Your task to perform on an android device: toggle notification dots Image 0: 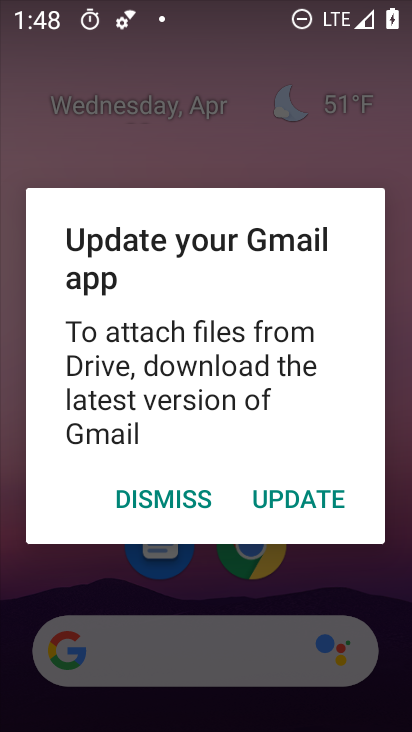
Step 0: press home button
Your task to perform on an android device: toggle notification dots Image 1: 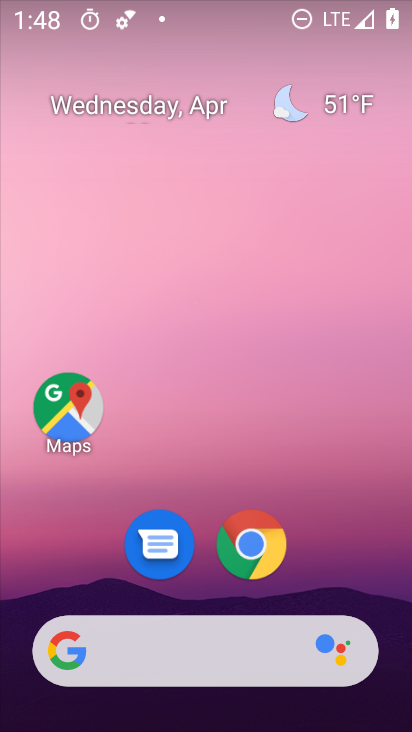
Step 1: drag from (339, 511) to (350, 160)
Your task to perform on an android device: toggle notification dots Image 2: 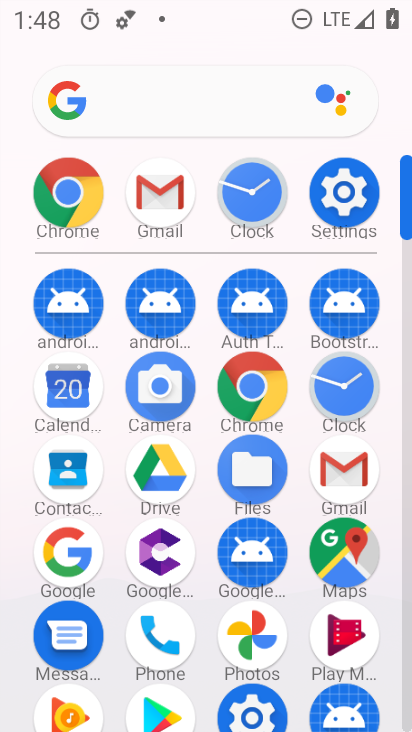
Step 2: click (347, 201)
Your task to perform on an android device: toggle notification dots Image 3: 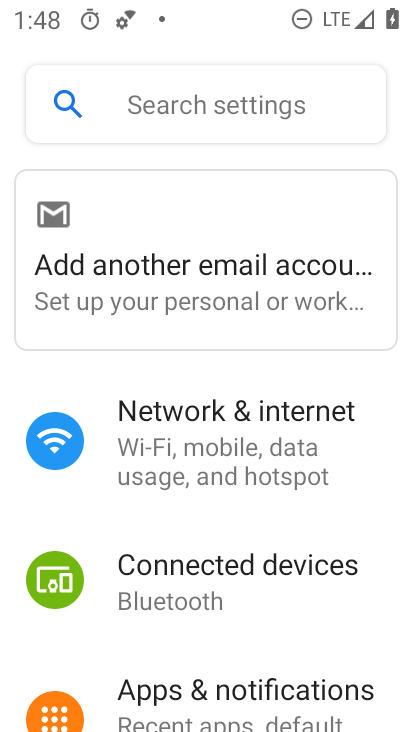
Step 3: drag from (373, 644) to (371, 408)
Your task to perform on an android device: toggle notification dots Image 4: 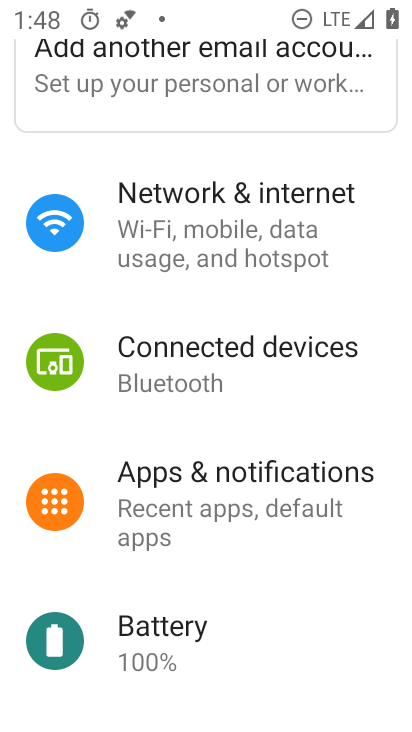
Step 4: drag from (359, 601) to (375, 433)
Your task to perform on an android device: toggle notification dots Image 5: 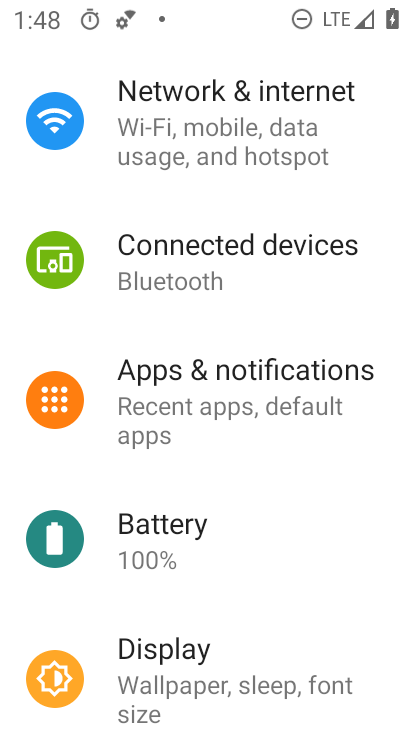
Step 5: drag from (349, 615) to (355, 442)
Your task to perform on an android device: toggle notification dots Image 6: 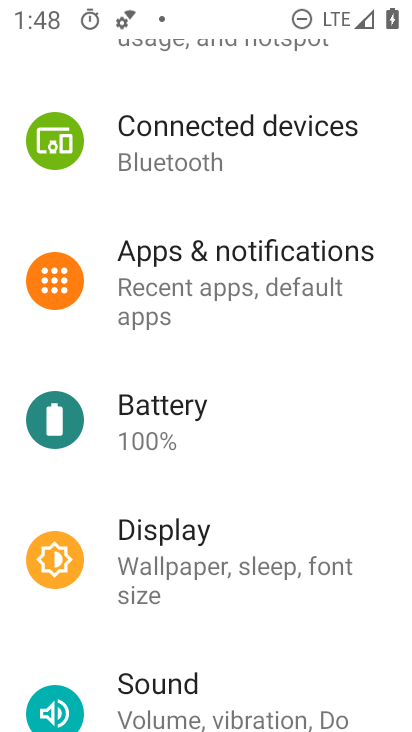
Step 6: drag from (339, 628) to (352, 459)
Your task to perform on an android device: toggle notification dots Image 7: 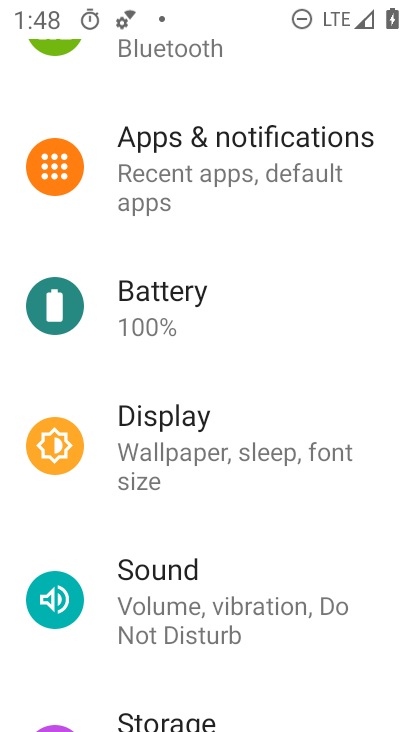
Step 7: click (276, 170)
Your task to perform on an android device: toggle notification dots Image 8: 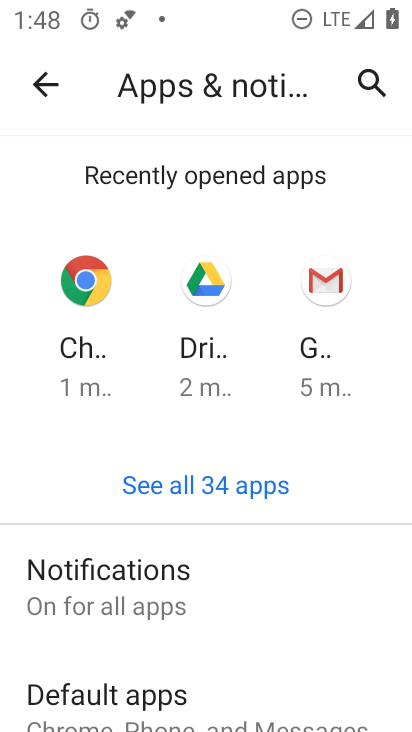
Step 8: click (124, 591)
Your task to perform on an android device: toggle notification dots Image 9: 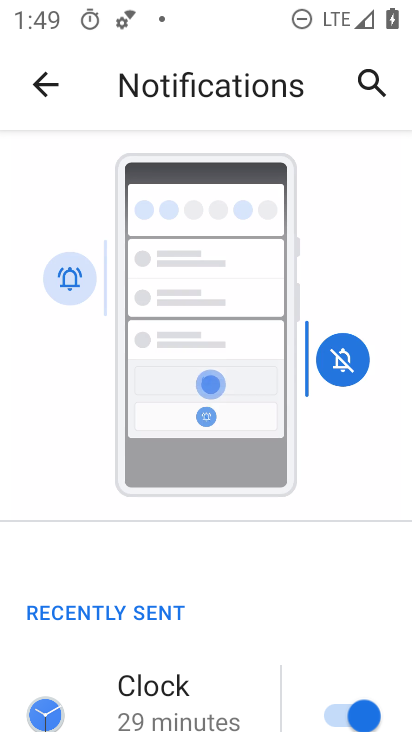
Step 9: drag from (325, 607) to (360, 339)
Your task to perform on an android device: toggle notification dots Image 10: 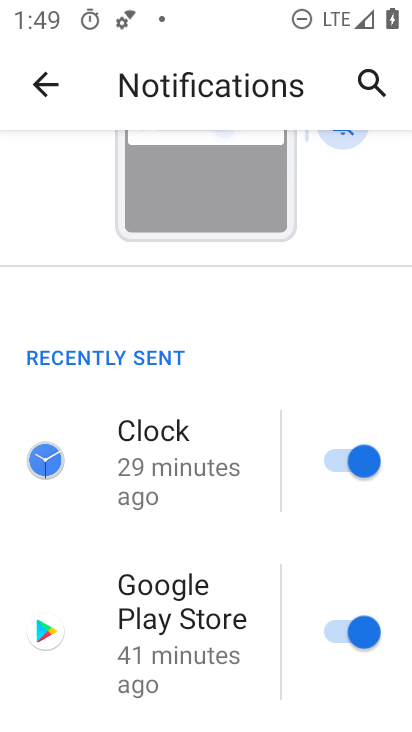
Step 10: drag from (296, 624) to (299, 483)
Your task to perform on an android device: toggle notification dots Image 11: 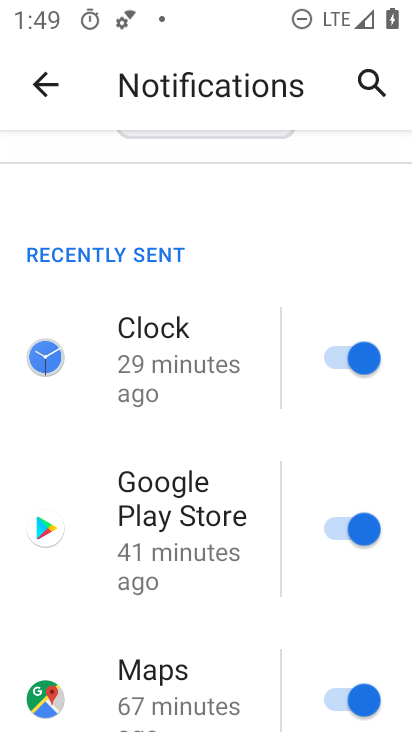
Step 11: drag from (289, 621) to (316, 416)
Your task to perform on an android device: toggle notification dots Image 12: 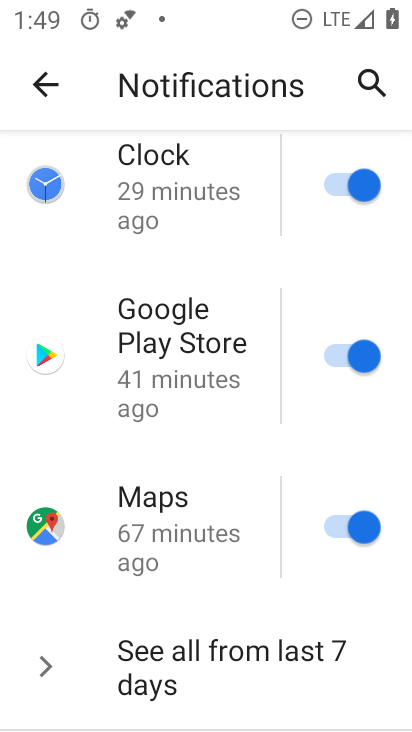
Step 12: drag from (299, 674) to (293, 433)
Your task to perform on an android device: toggle notification dots Image 13: 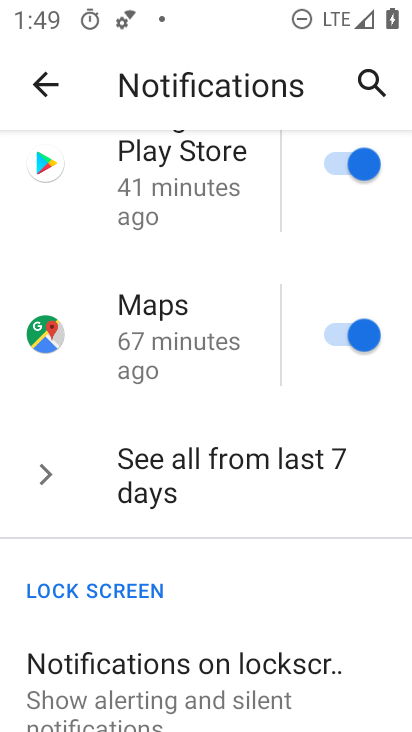
Step 13: drag from (337, 679) to (358, 456)
Your task to perform on an android device: toggle notification dots Image 14: 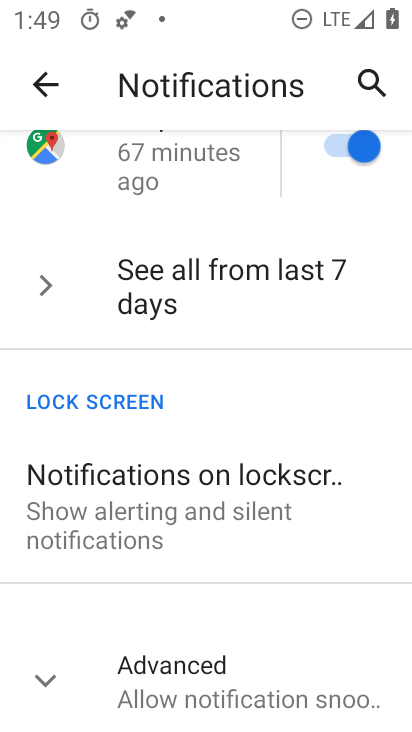
Step 14: drag from (318, 626) to (324, 464)
Your task to perform on an android device: toggle notification dots Image 15: 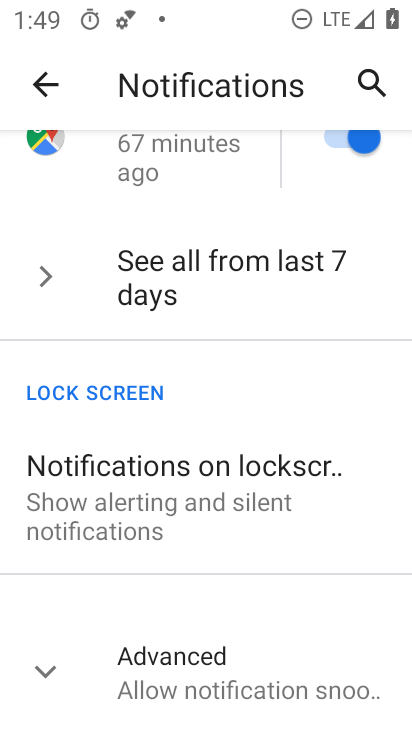
Step 15: click (210, 664)
Your task to perform on an android device: toggle notification dots Image 16: 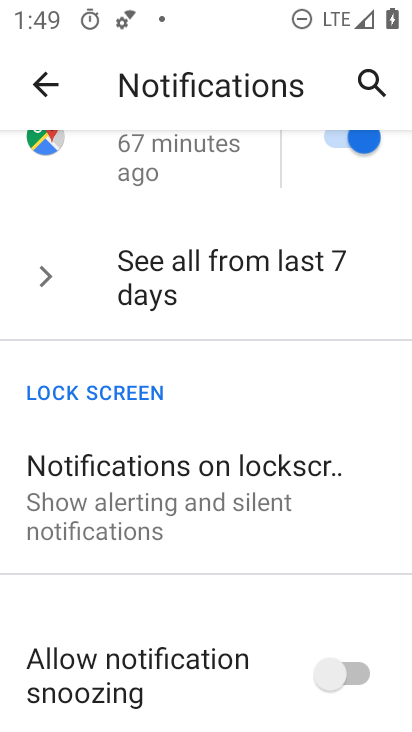
Step 16: drag from (272, 622) to (271, 436)
Your task to perform on an android device: toggle notification dots Image 17: 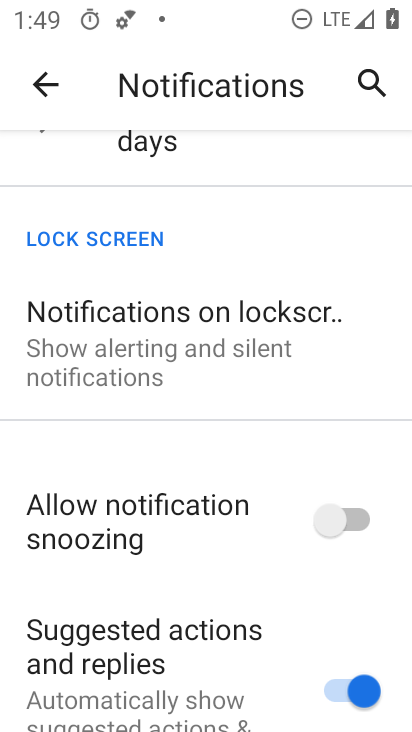
Step 17: drag from (277, 667) to (283, 475)
Your task to perform on an android device: toggle notification dots Image 18: 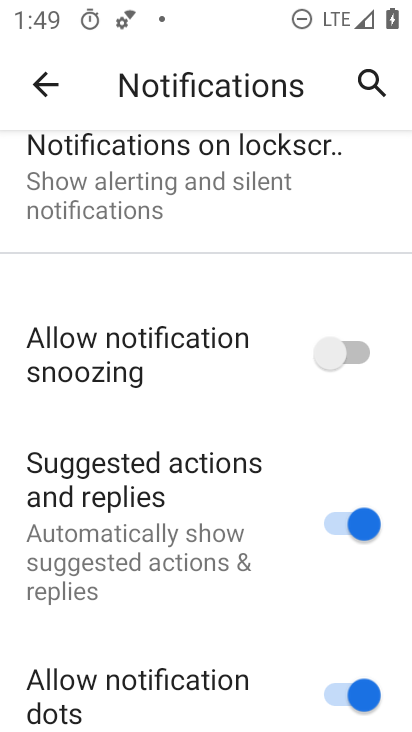
Step 18: drag from (276, 678) to (273, 484)
Your task to perform on an android device: toggle notification dots Image 19: 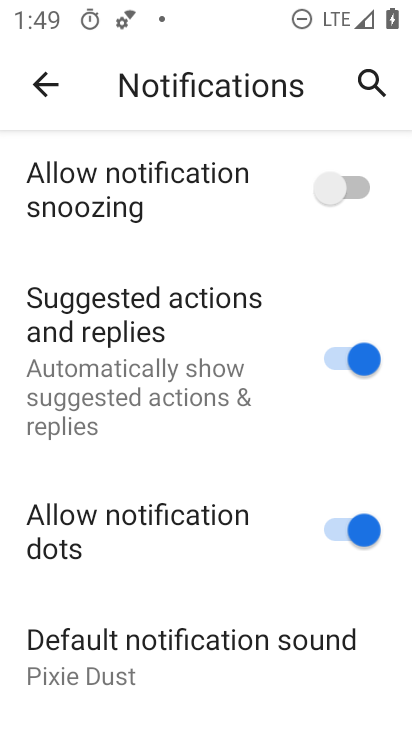
Step 19: drag from (259, 581) to (274, 457)
Your task to perform on an android device: toggle notification dots Image 20: 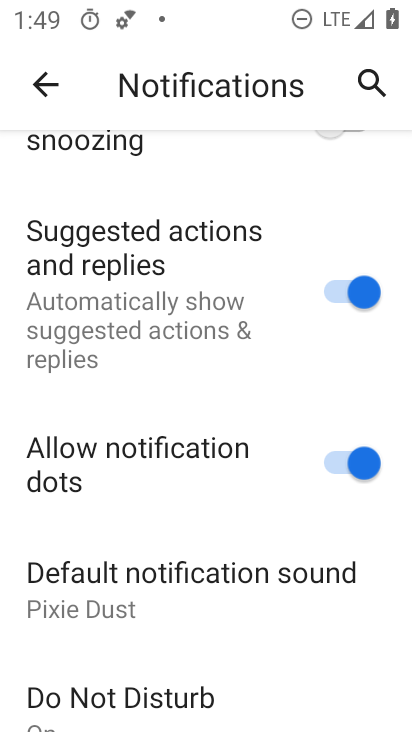
Step 20: click (356, 468)
Your task to perform on an android device: toggle notification dots Image 21: 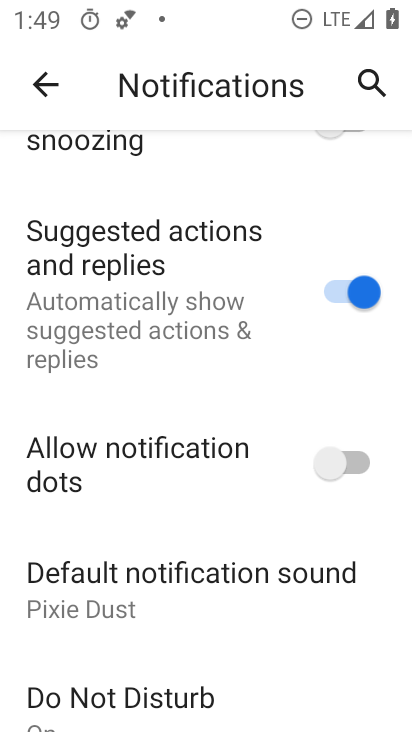
Step 21: task complete